Your task to perform on an android device: Open Wikipedia Image 0: 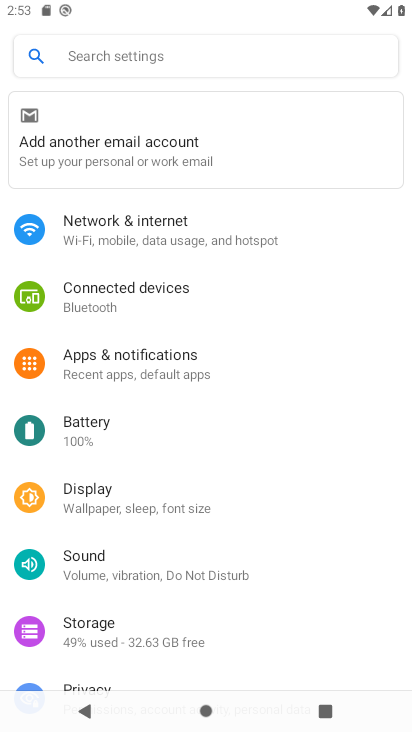
Step 0: press home button
Your task to perform on an android device: Open Wikipedia Image 1: 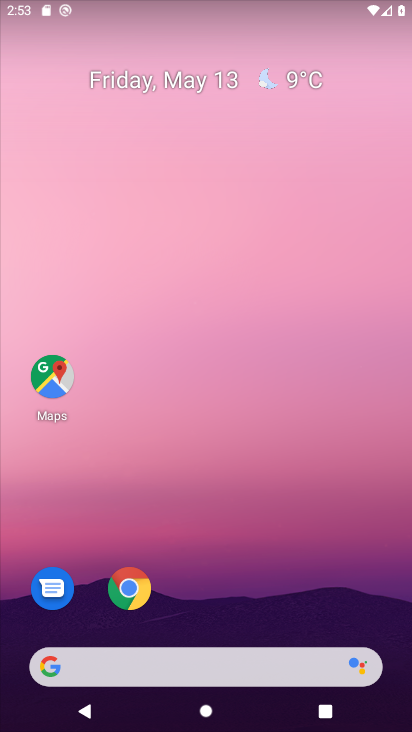
Step 1: click (139, 589)
Your task to perform on an android device: Open Wikipedia Image 2: 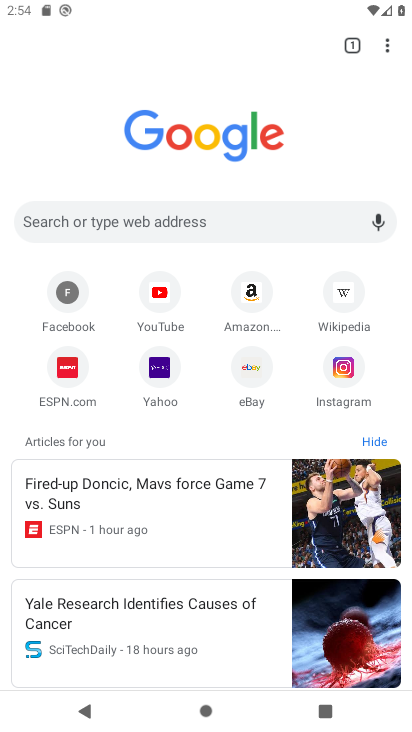
Step 2: click (347, 301)
Your task to perform on an android device: Open Wikipedia Image 3: 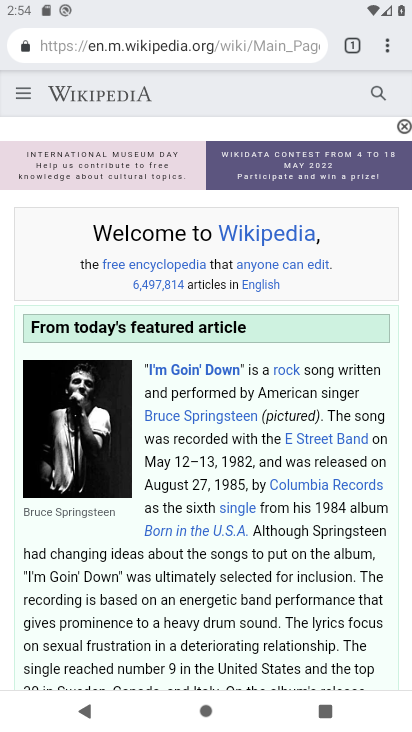
Step 3: task complete